Your task to perform on an android device: What's the weather going to be tomorrow? Image 0: 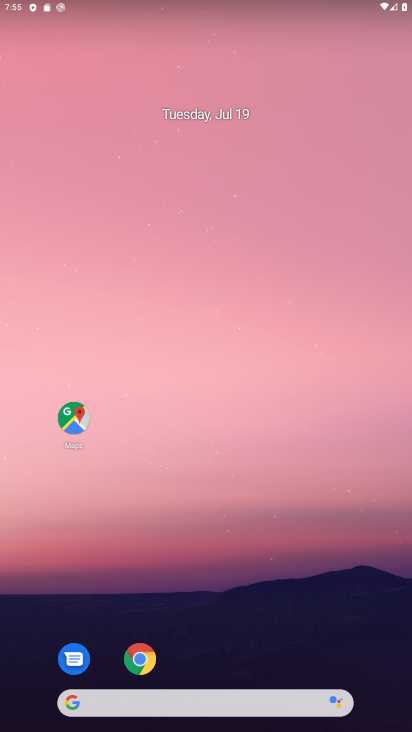
Step 0: drag from (238, 622) to (329, 172)
Your task to perform on an android device: What's the weather going to be tomorrow? Image 1: 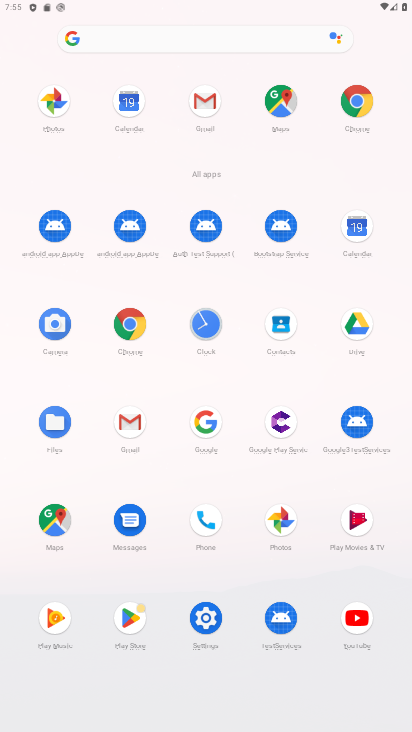
Step 1: click (125, 323)
Your task to perform on an android device: What's the weather going to be tomorrow? Image 2: 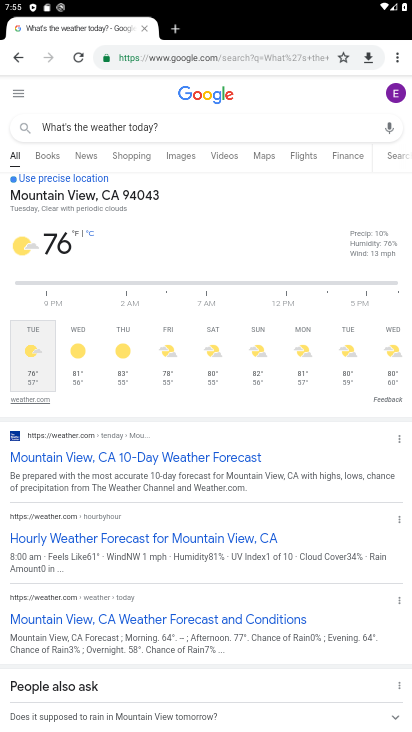
Step 2: click (154, 53)
Your task to perform on an android device: What's the weather going to be tomorrow? Image 3: 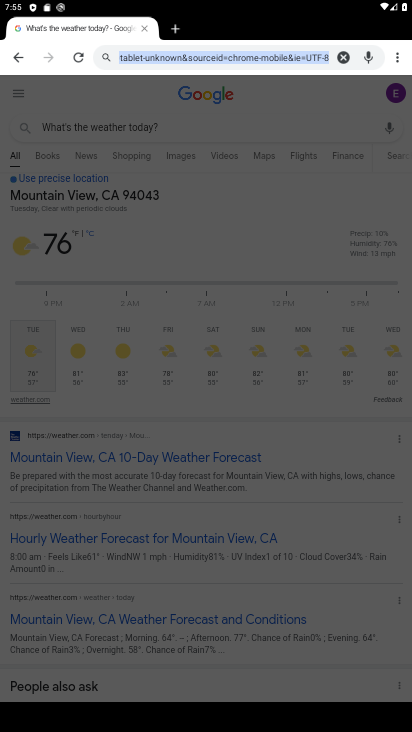
Step 3: click (340, 54)
Your task to perform on an android device: What's the weather going to be tomorrow? Image 4: 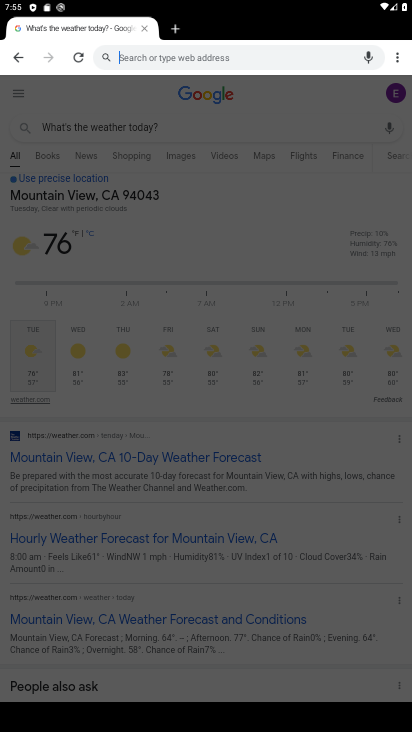
Step 4: type "What's the weather going to be tomorrow?"
Your task to perform on an android device: What's the weather going to be tomorrow? Image 5: 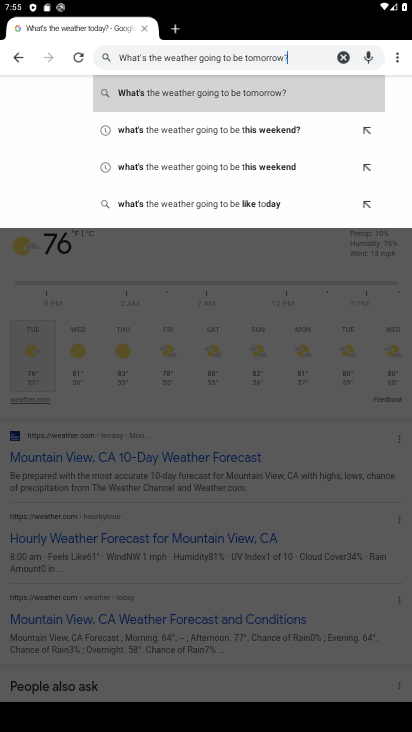
Step 5: type ""
Your task to perform on an android device: What's the weather going to be tomorrow? Image 6: 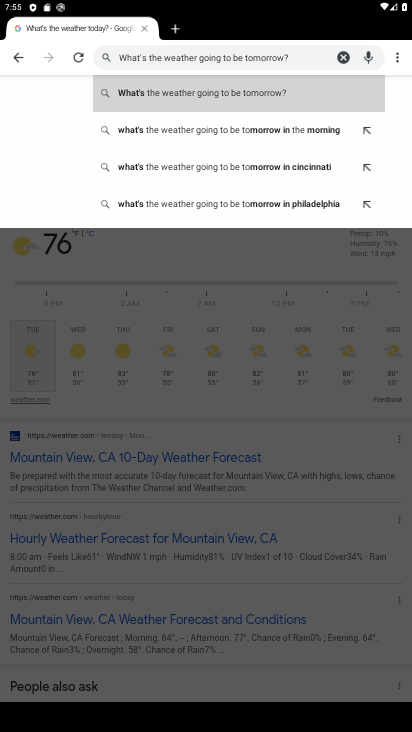
Step 6: click (199, 89)
Your task to perform on an android device: What's the weather going to be tomorrow? Image 7: 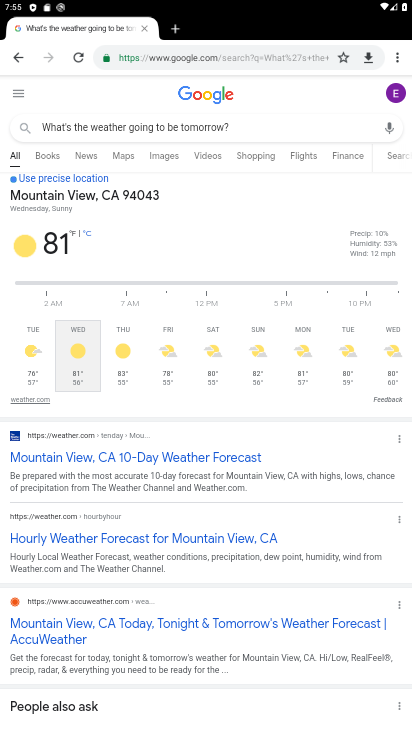
Step 7: task complete